Your task to perform on an android device: What's US dollar exchange rate against the Japanese Yen? Image 0: 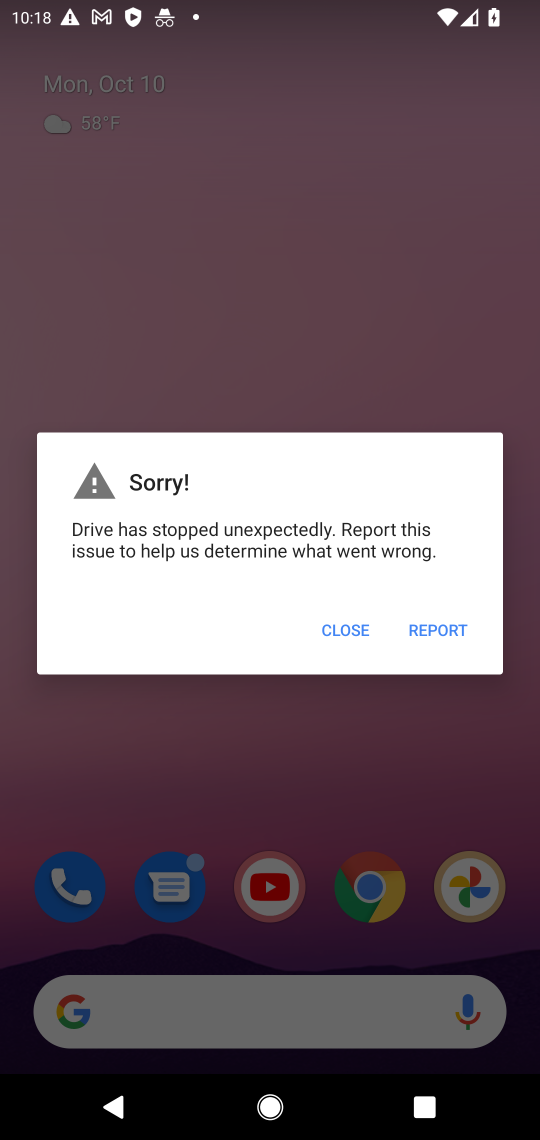
Step 0: press home button
Your task to perform on an android device: What's US dollar exchange rate against the Japanese Yen? Image 1: 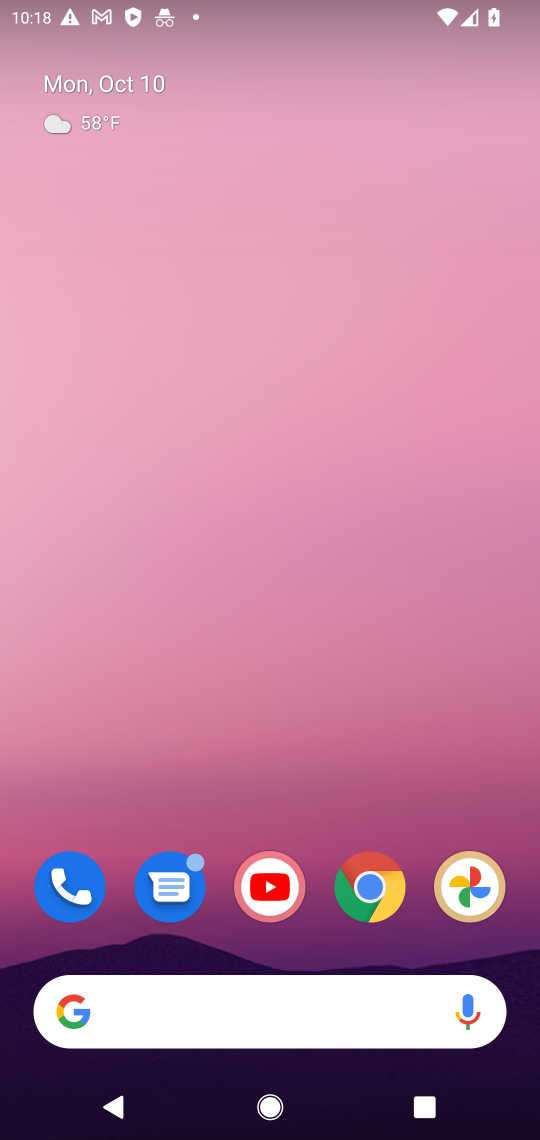
Step 1: drag from (195, 894) to (234, 410)
Your task to perform on an android device: What's US dollar exchange rate against the Japanese Yen? Image 2: 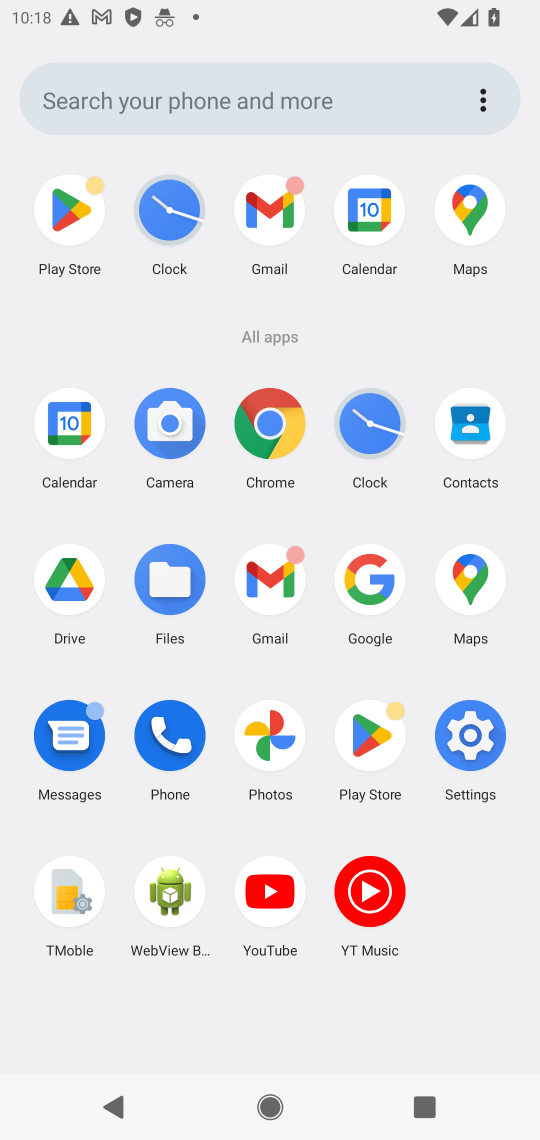
Step 2: click (367, 579)
Your task to perform on an android device: What's US dollar exchange rate against the Japanese Yen? Image 3: 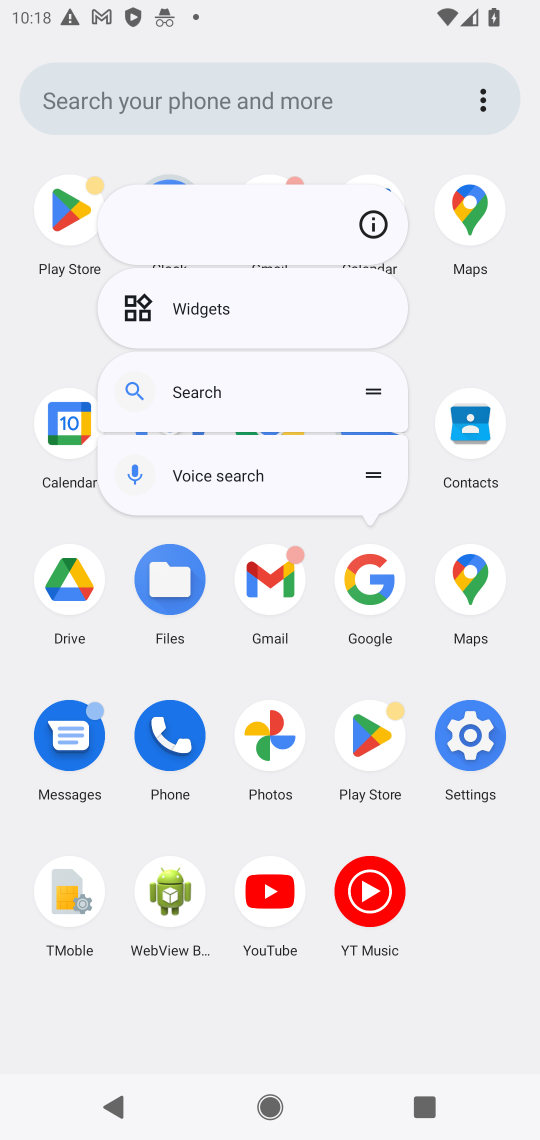
Step 3: click (376, 596)
Your task to perform on an android device: What's US dollar exchange rate against the Japanese Yen? Image 4: 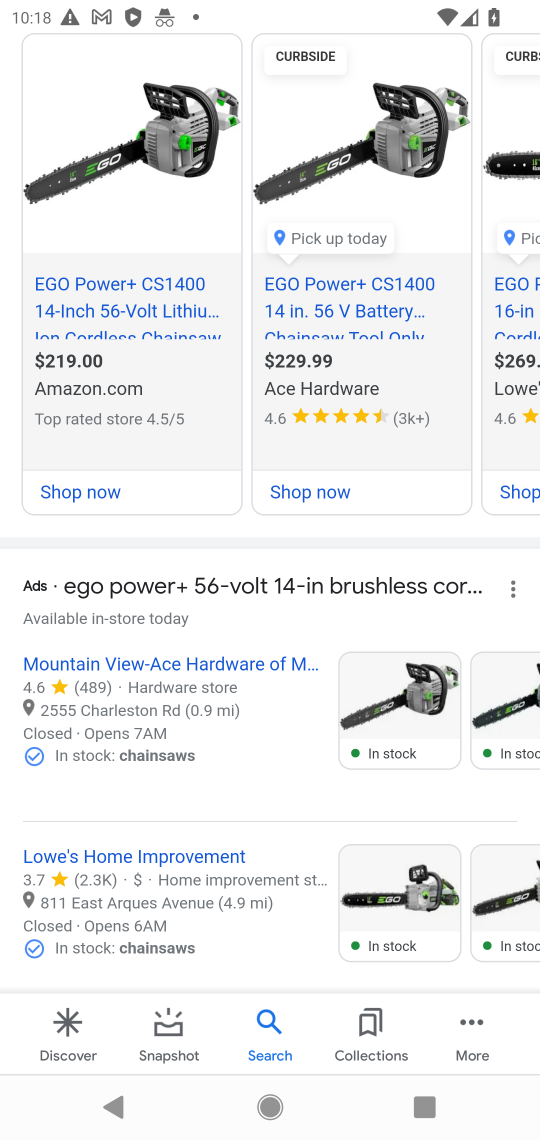
Step 4: drag from (119, 253) to (128, 673)
Your task to perform on an android device: What's US dollar exchange rate against the Japanese Yen? Image 5: 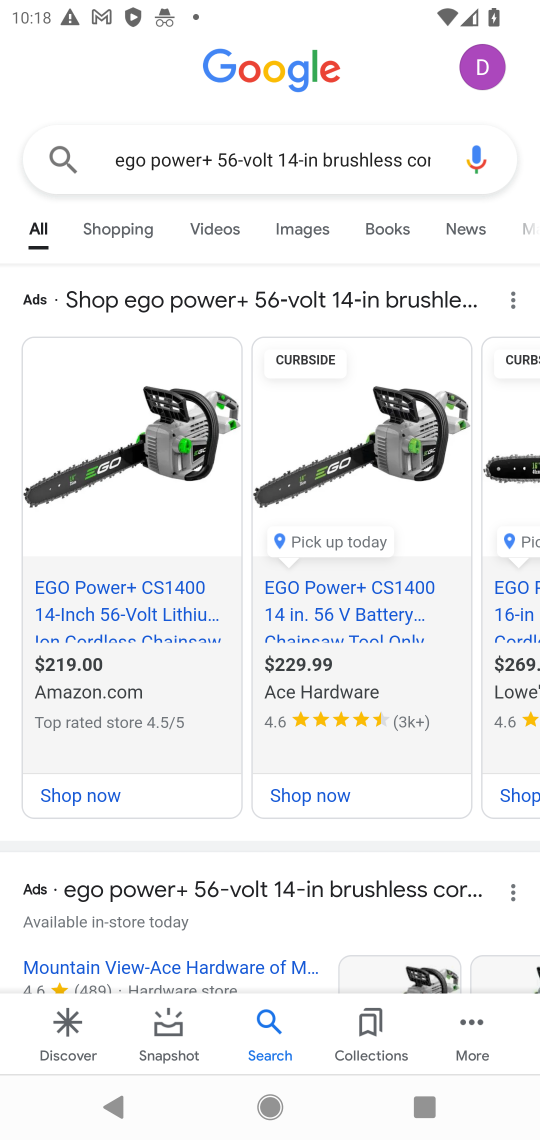
Step 5: click (227, 140)
Your task to perform on an android device: What's US dollar exchange rate against the Japanese Yen? Image 6: 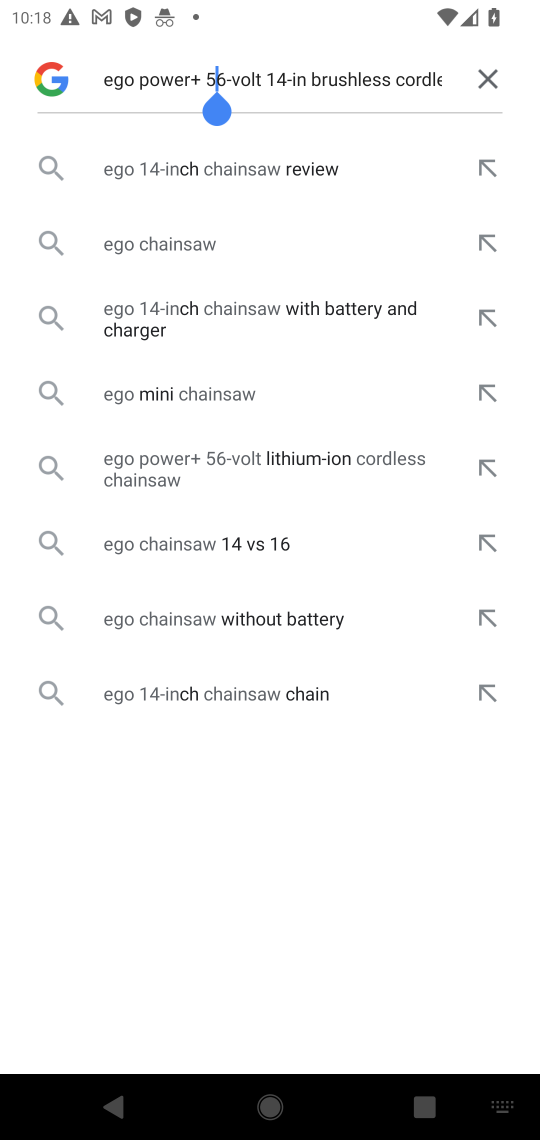
Step 6: click (482, 80)
Your task to perform on an android device: What's US dollar exchange rate against the Japanese Yen? Image 7: 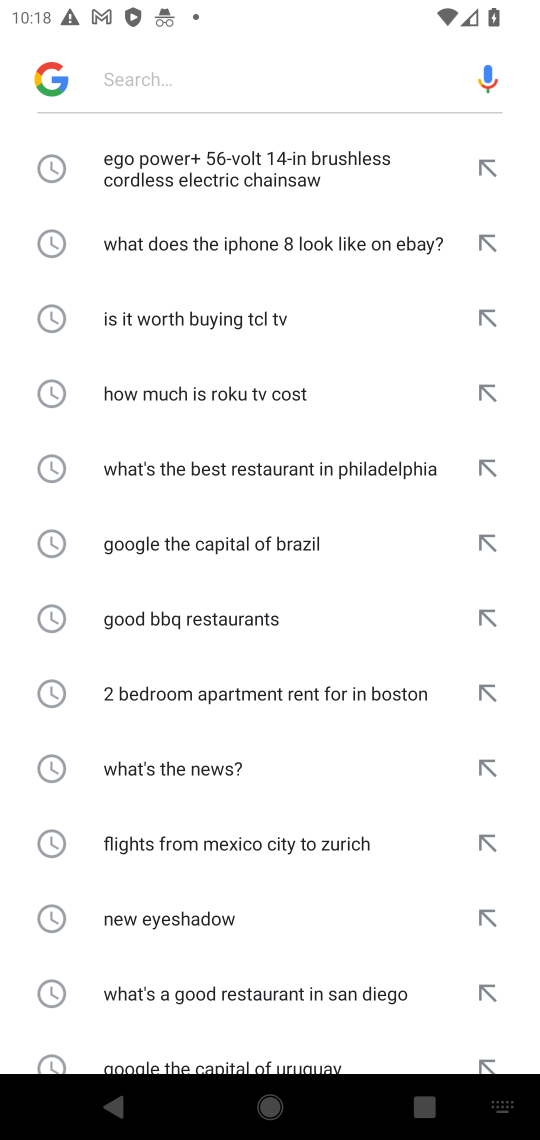
Step 7: click (226, 73)
Your task to perform on an android device: What's US dollar exchange rate against the Japanese Yen? Image 8: 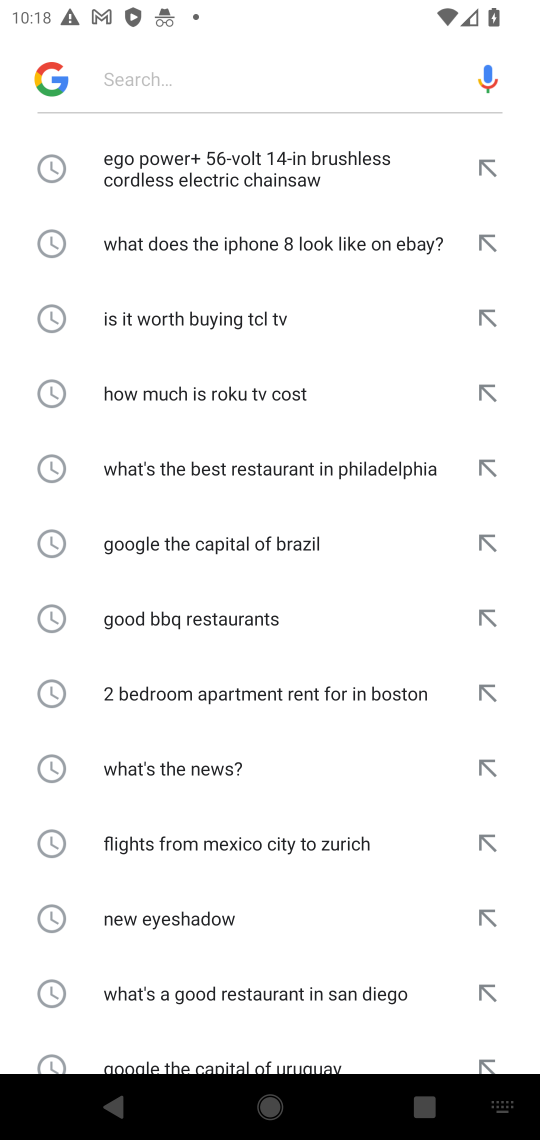
Step 8: type "What's US dollar exchange rate against the Japanese Yen "
Your task to perform on an android device: What's US dollar exchange rate against the Japanese Yen? Image 9: 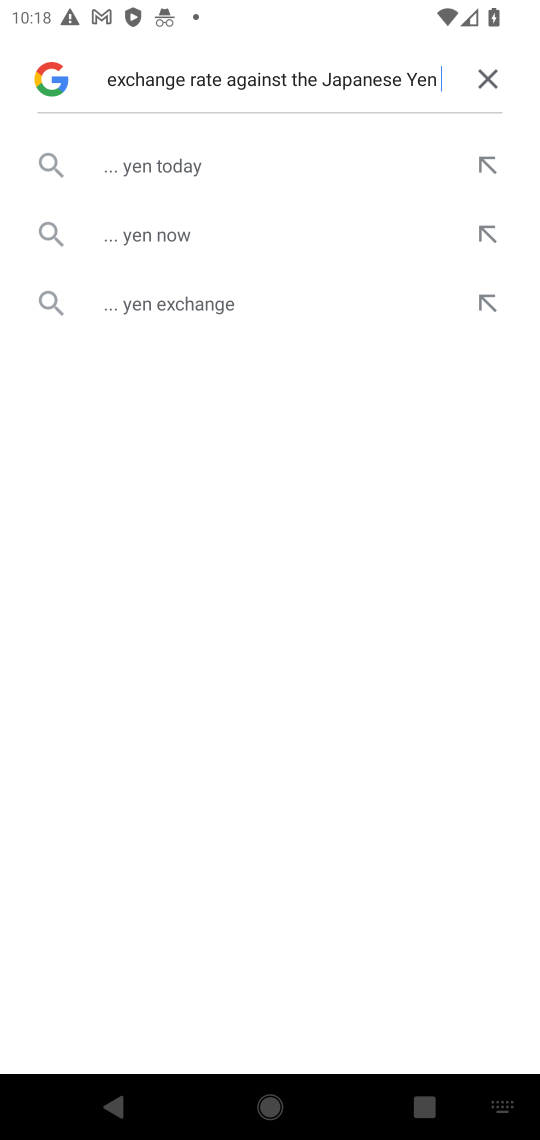
Step 9: click (168, 159)
Your task to perform on an android device: What's US dollar exchange rate against the Japanese Yen? Image 10: 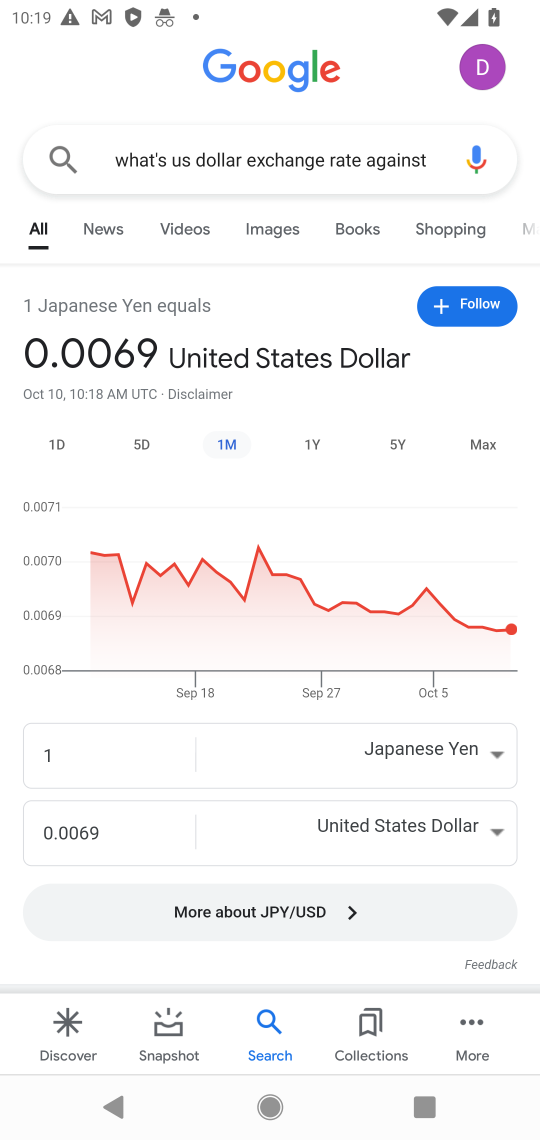
Step 10: task complete